Your task to perform on an android device: stop showing notifications on the lock screen Image 0: 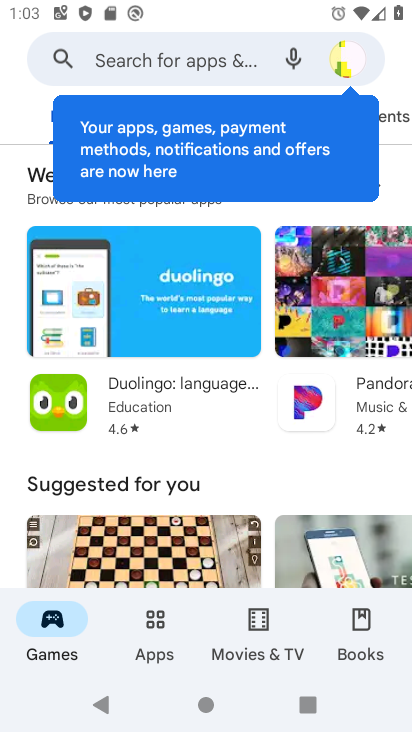
Step 0: press home button
Your task to perform on an android device: stop showing notifications on the lock screen Image 1: 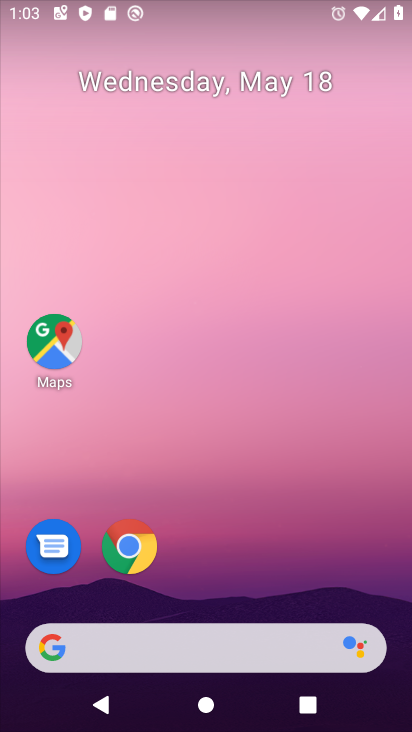
Step 1: drag from (209, 626) to (279, 135)
Your task to perform on an android device: stop showing notifications on the lock screen Image 2: 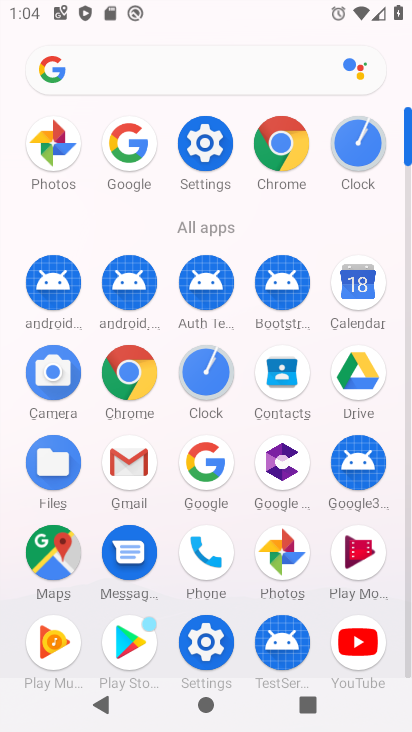
Step 2: click (198, 165)
Your task to perform on an android device: stop showing notifications on the lock screen Image 3: 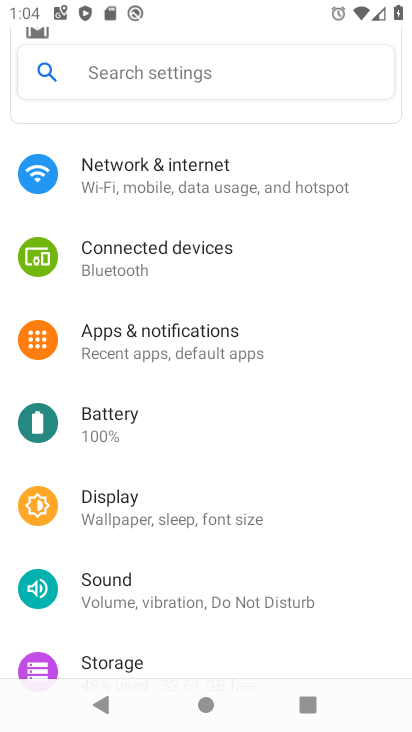
Step 3: click (139, 345)
Your task to perform on an android device: stop showing notifications on the lock screen Image 4: 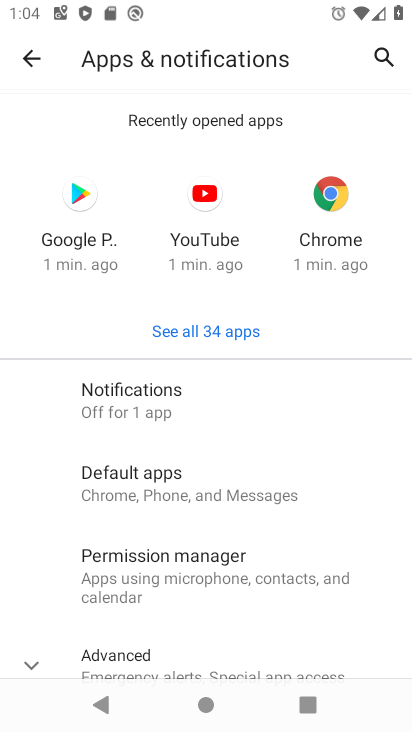
Step 4: click (141, 399)
Your task to perform on an android device: stop showing notifications on the lock screen Image 5: 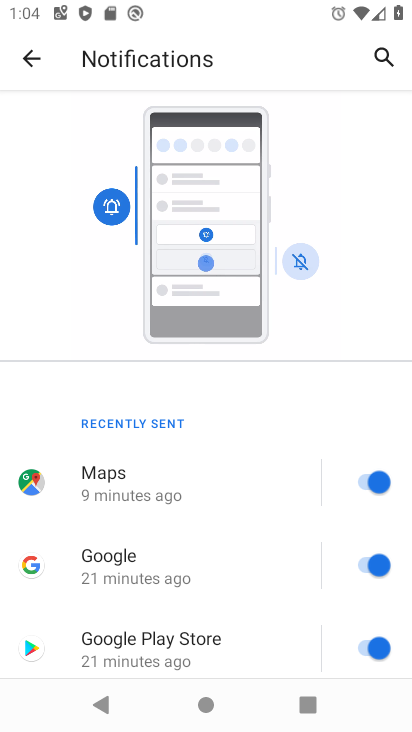
Step 5: drag from (144, 549) to (238, 121)
Your task to perform on an android device: stop showing notifications on the lock screen Image 6: 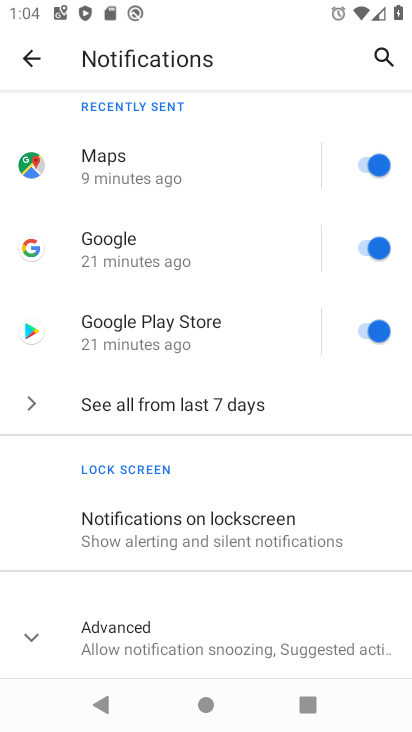
Step 6: click (185, 525)
Your task to perform on an android device: stop showing notifications on the lock screen Image 7: 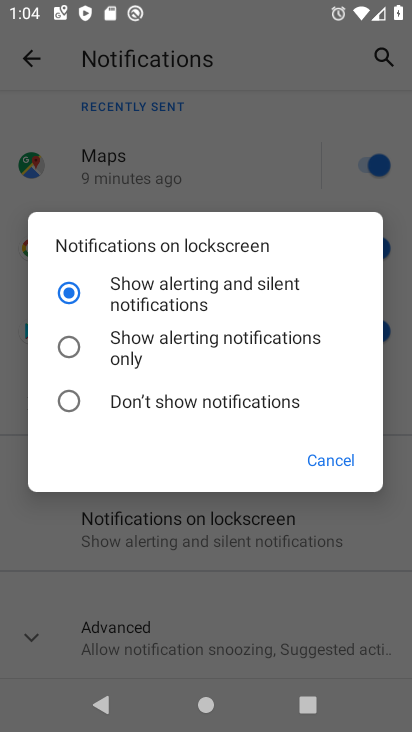
Step 7: click (187, 409)
Your task to perform on an android device: stop showing notifications on the lock screen Image 8: 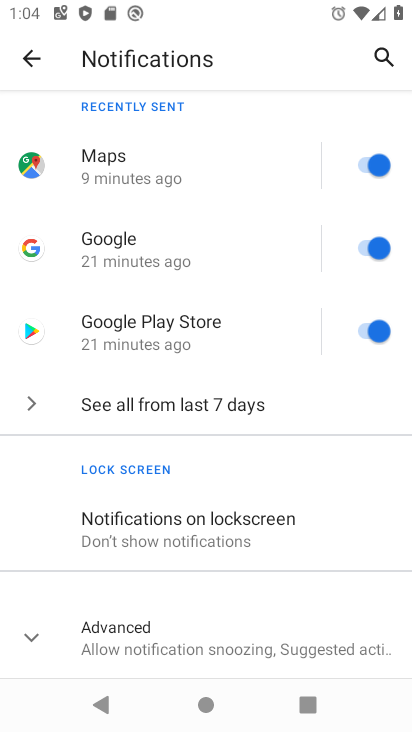
Step 8: task complete